Your task to perform on an android device: How do I get to the nearest McDonalds? Image 0: 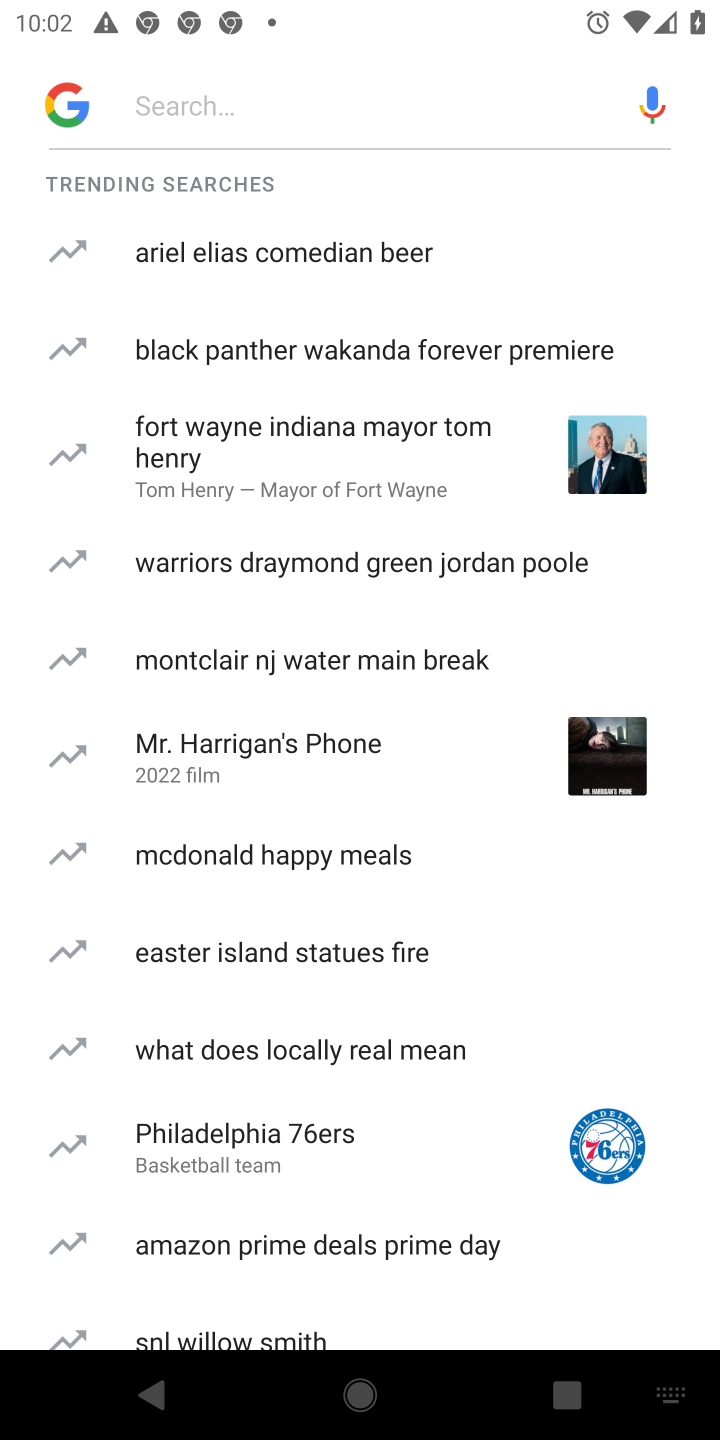
Step 0: click (252, 90)
Your task to perform on an android device: How do I get to the nearest McDonalds? Image 1: 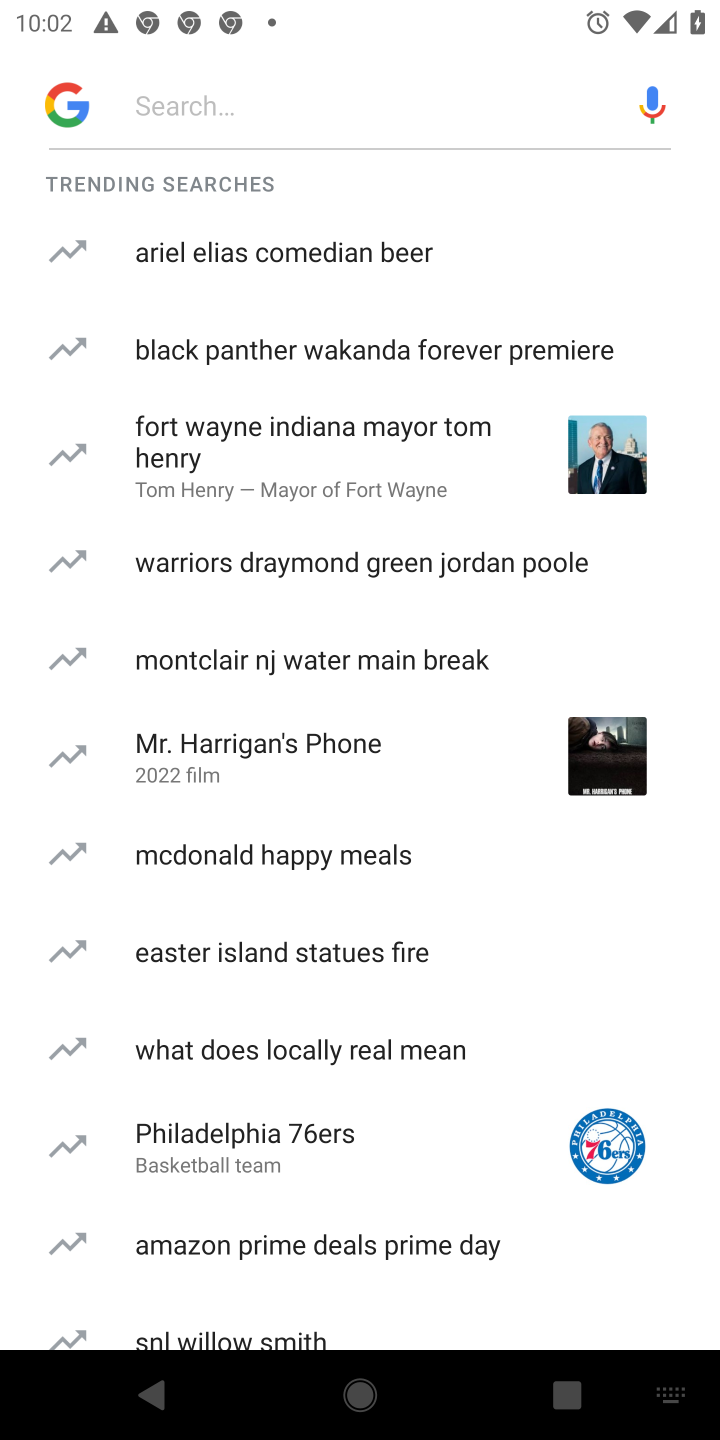
Step 1: type "How do I get to the nearest McDonalds? "
Your task to perform on an android device: How do I get to the nearest McDonalds? Image 2: 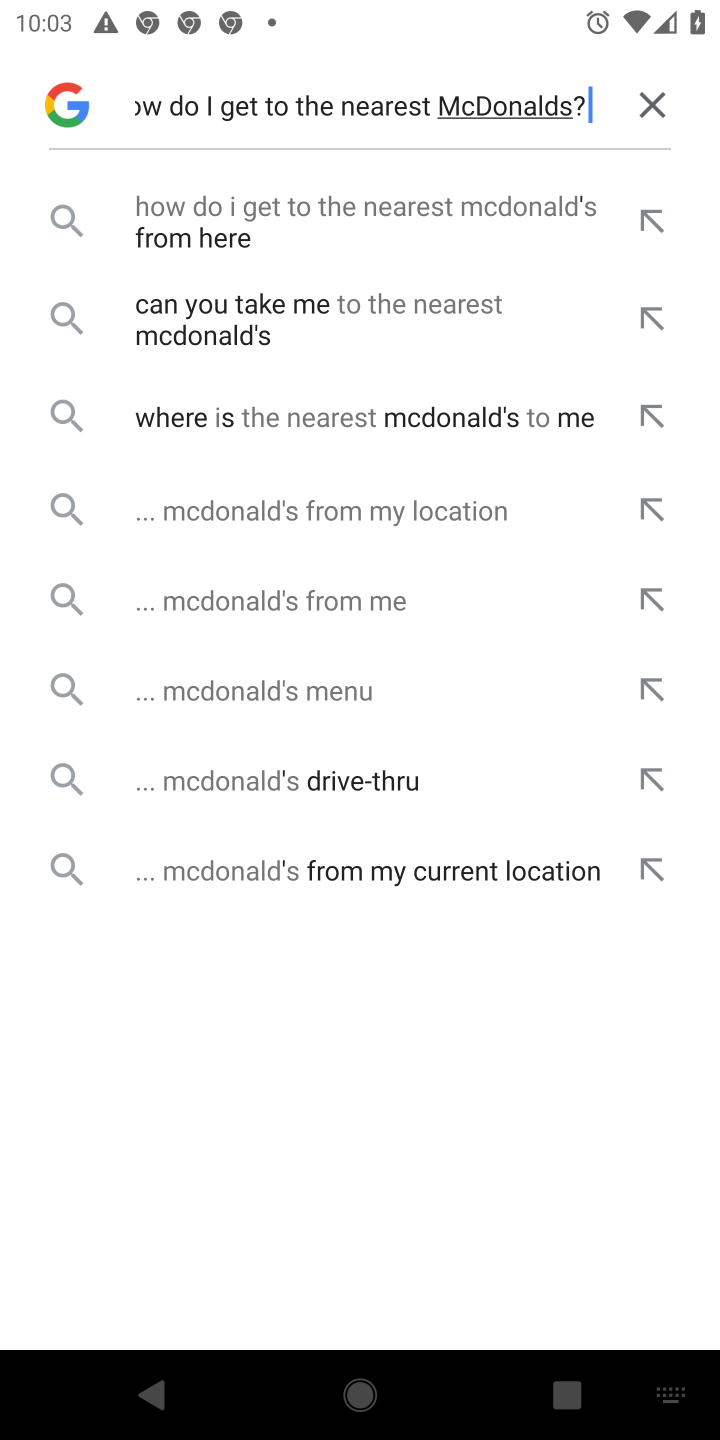
Step 2: click (274, 223)
Your task to perform on an android device: How do I get to the nearest McDonalds? Image 3: 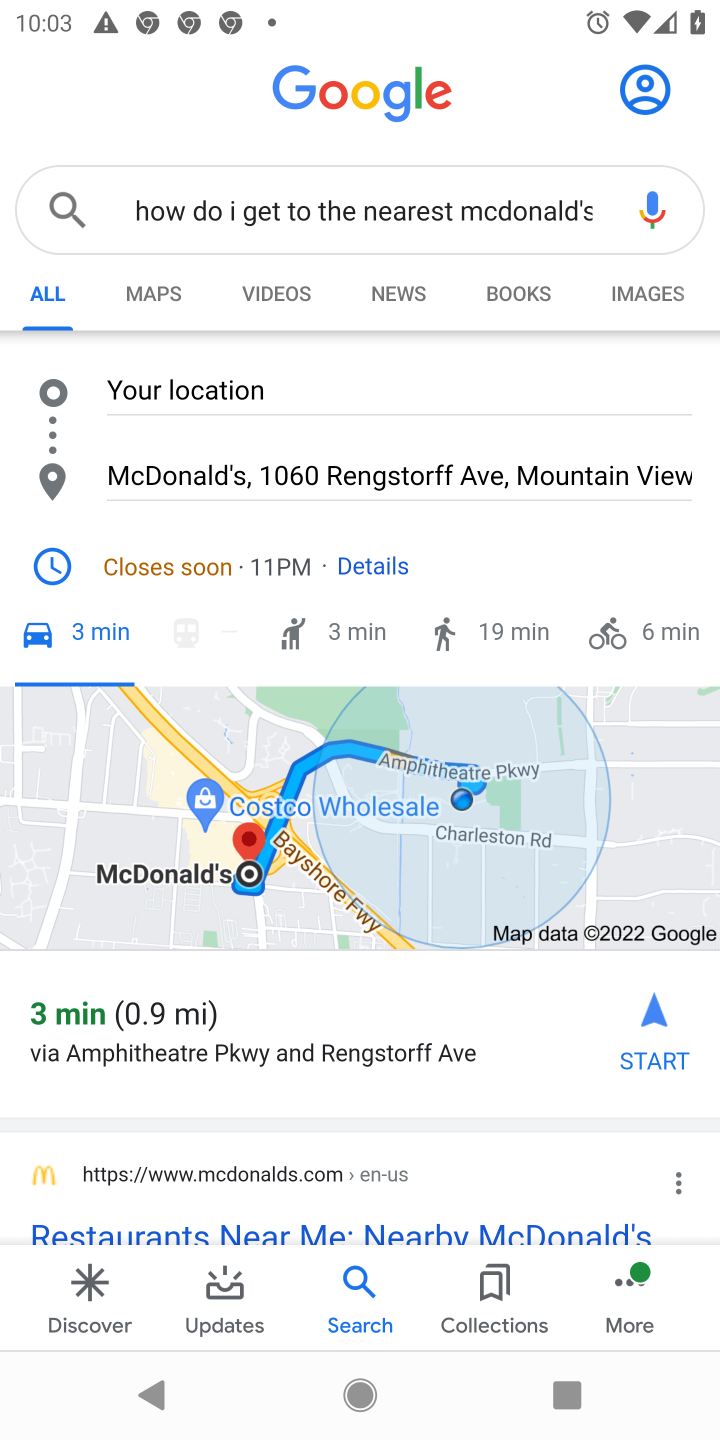
Step 3: drag from (359, 1224) to (389, 701)
Your task to perform on an android device: How do I get to the nearest McDonalds? Image 4: 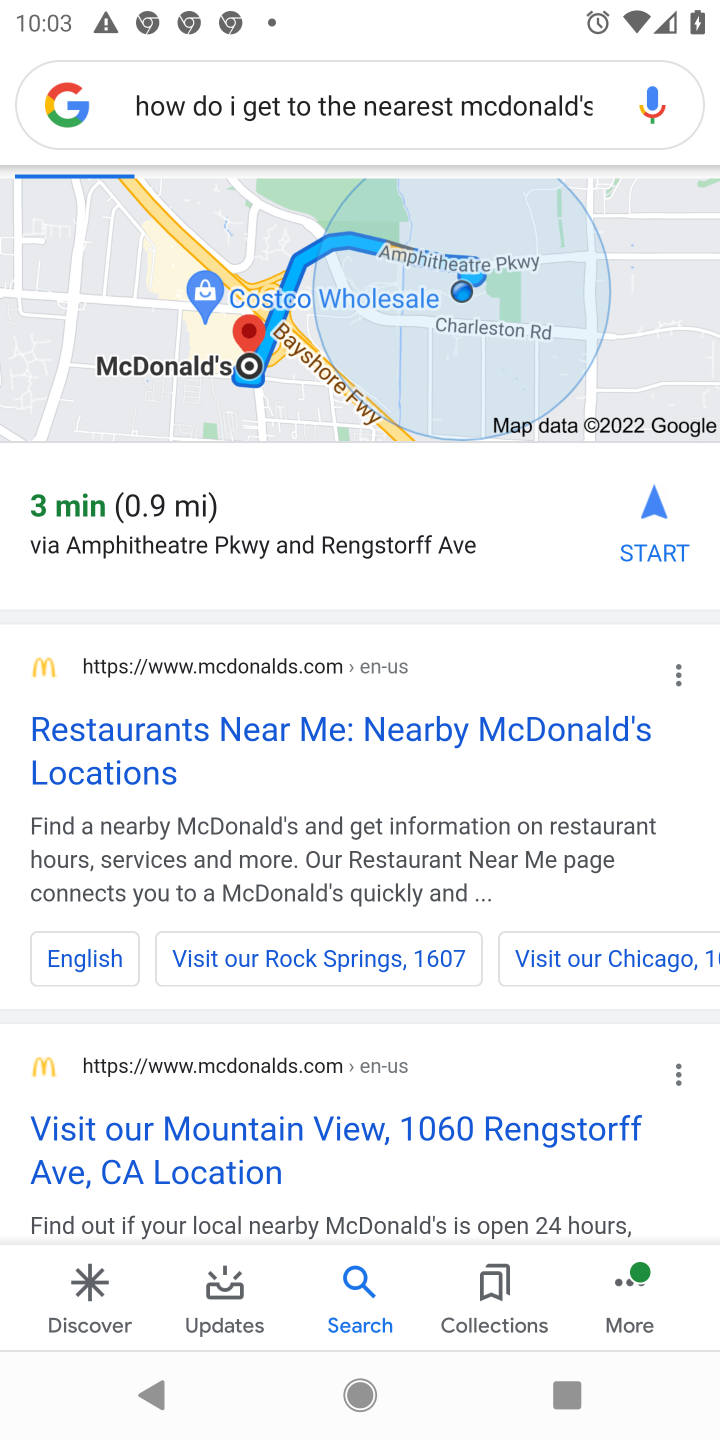
Step 4: click (96, 1181)
Your task to perform on an android device: How do I get to the nearest McDonalds? Image 5: 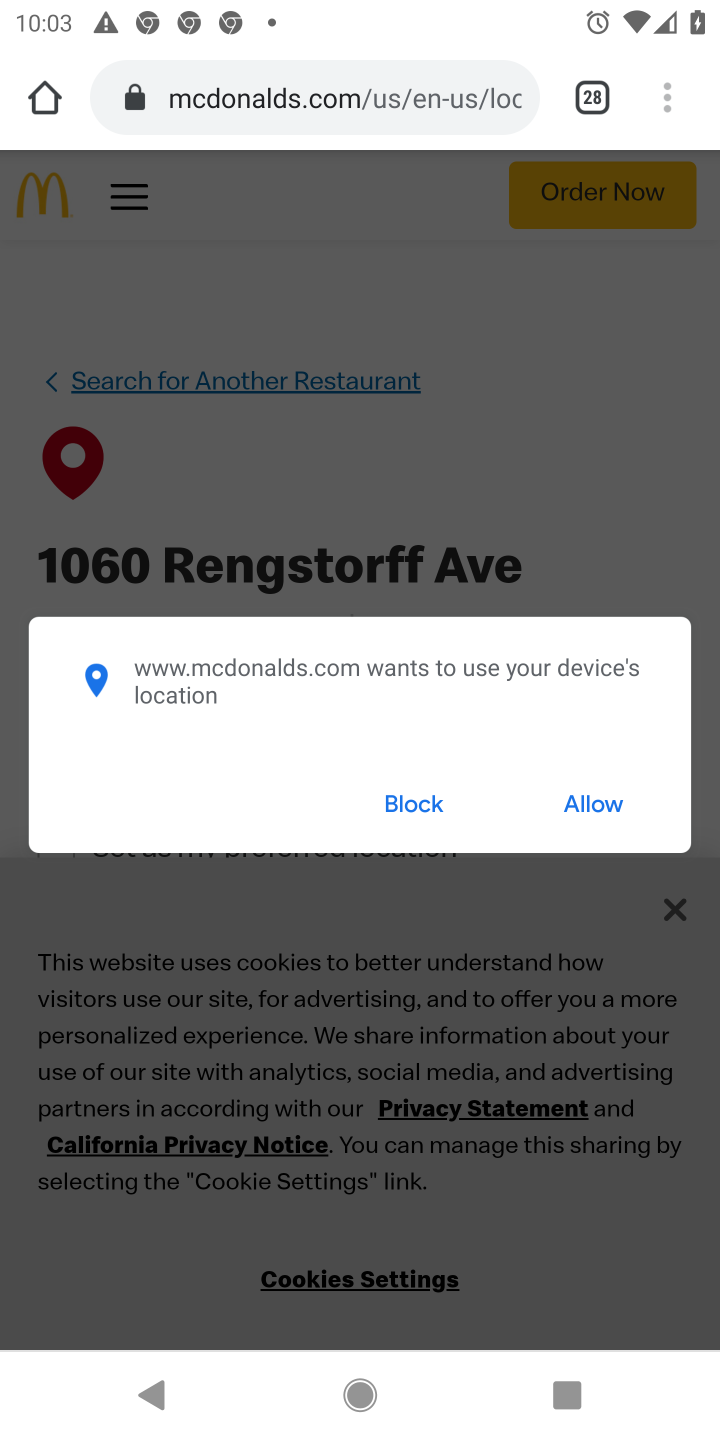
Step 5: click (590, 802)
Your task to perform on an android device: How do I get to the nearest McDonalds? Image 6: 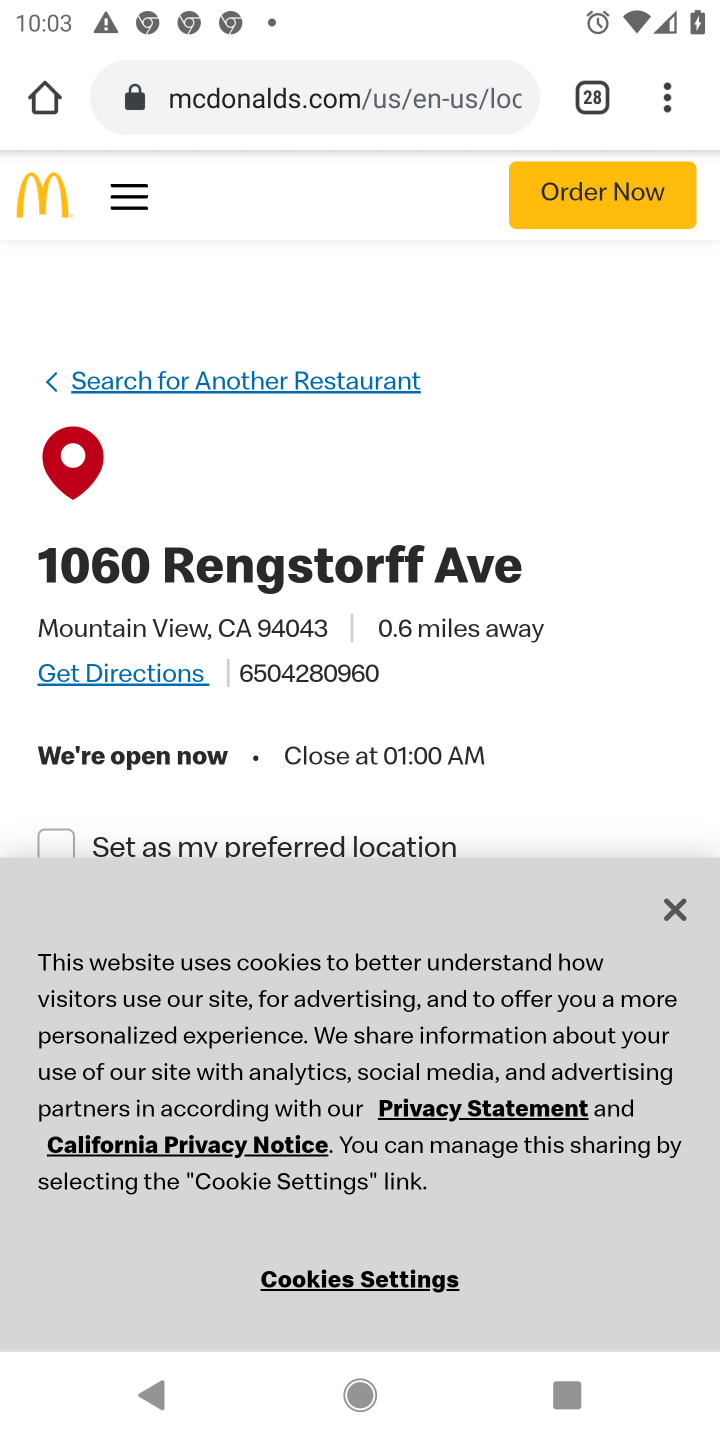
Step 6: task complete